Your task to perform on an android device: Go to display settings Image 0: 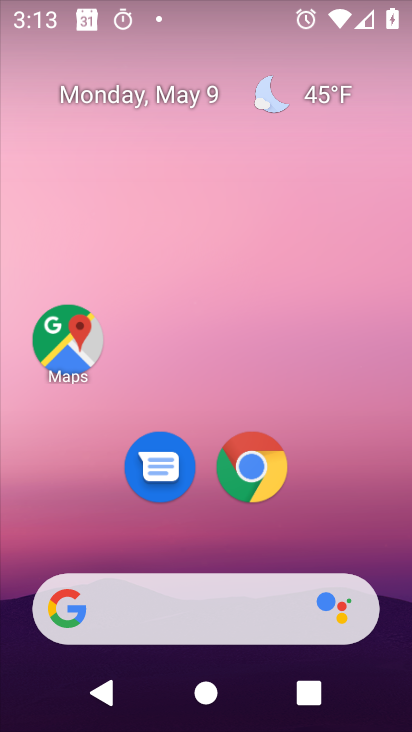
Step 0: drag from (352, 280) to (362, 169)
Your task to perform on an android device: Go to display settings Image 1: 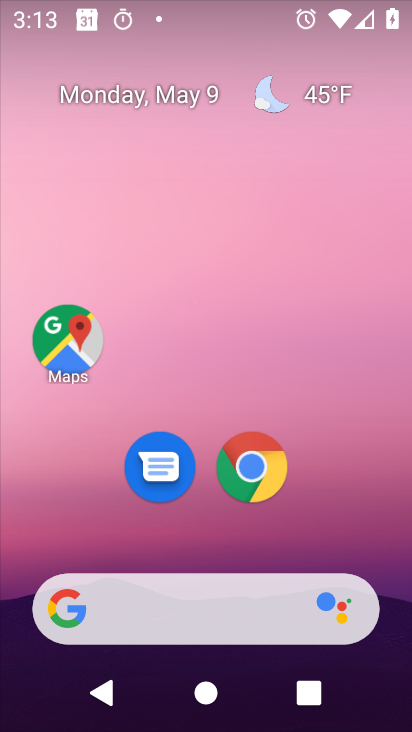
Step 1: drag from (341, 494) to (290, 113)
Your task to perform on an android device: Go to display settings Image 2: 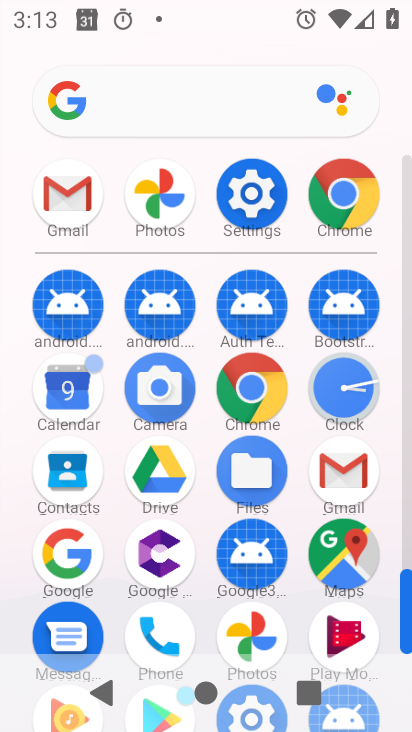
Step 2: click (256, 186)
Your task to perform on an android device: Go to display settings Image 3: 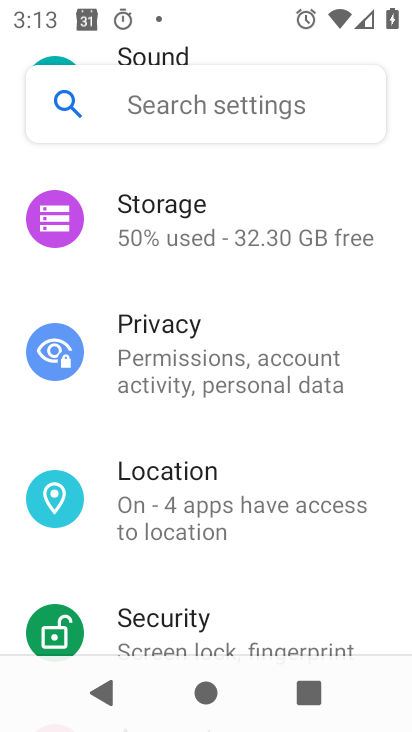
Step 3: drag from (249, 247) to (273, 546)
Your task to perform on an android device: Go to display settings Image 4: 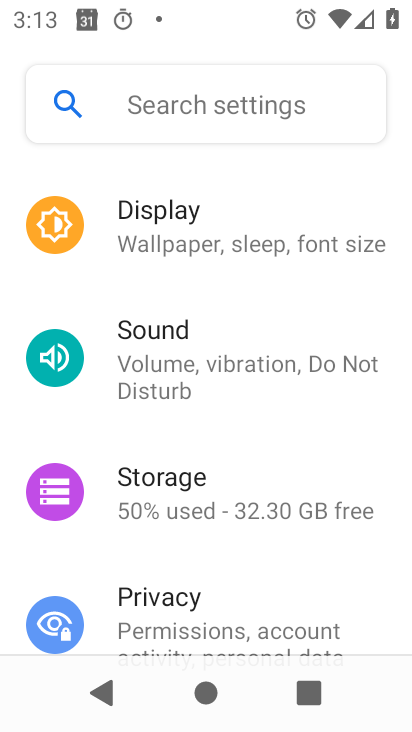
Step 4: click (259, 229)
Your task to perform on an android device: Go to display settings Image 5: 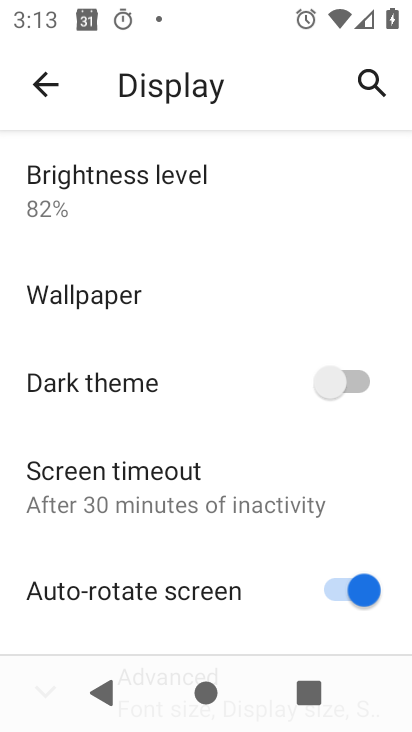
Step 5: task complete